Your task to perform on an android device: all mails in gmail Image 0: 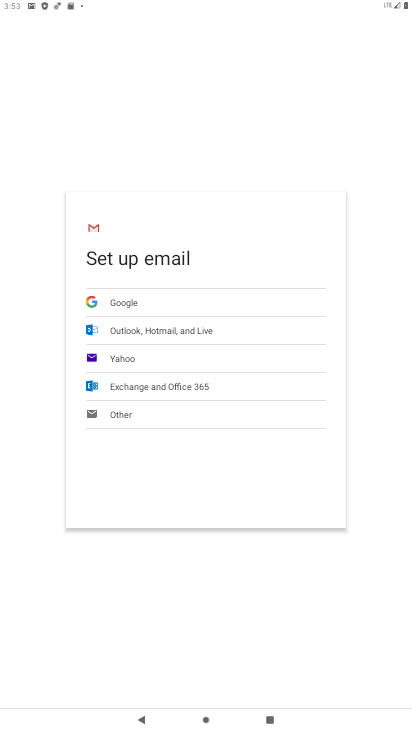
Step 0: press back button
Your task to perform on an android device: all mails in gmail Image 1: 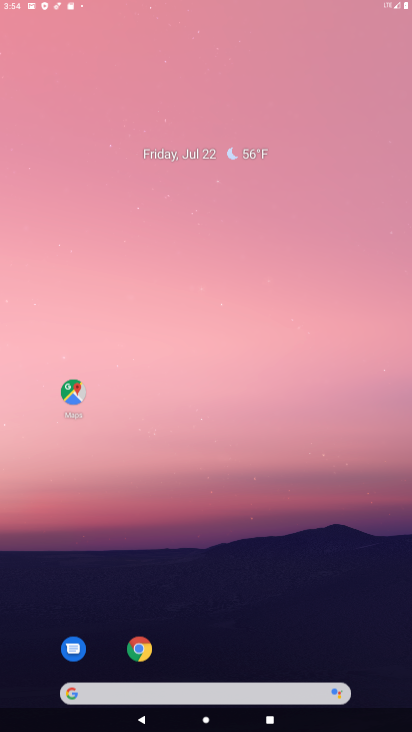
Step 1: press back button
Your task to perform on an android device: all mails in gmail Image 2: 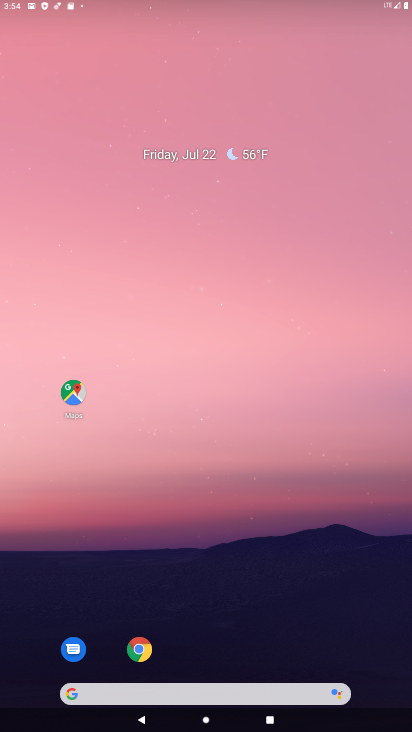
Step 2: press back button
Your task to perform on an android device: all mails in gmail Image 3: 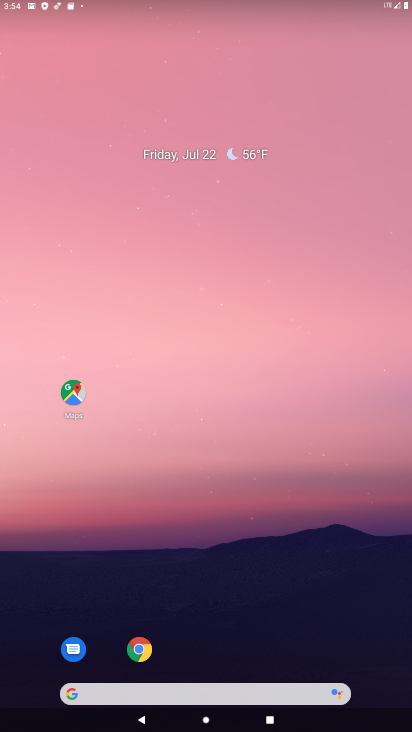
Step 3: drag from (225, 205) to (213, 128)
Your task to perform on an android device: all mails in gmail Image 4: 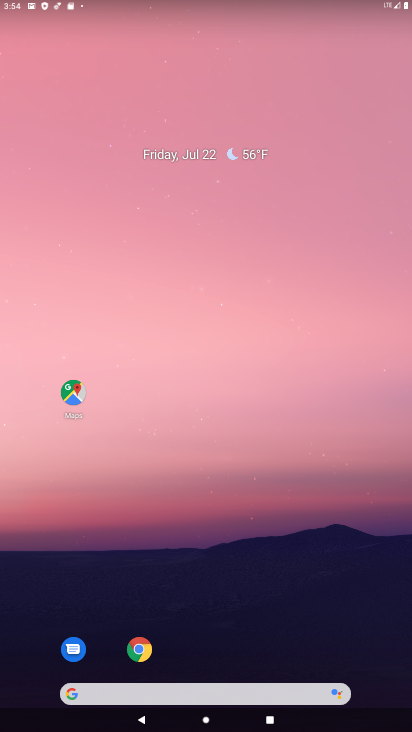
Step 4: drag from (198, 436) to (173, 250)
Your task to perform on an android device: all mails in gmail Image 5: 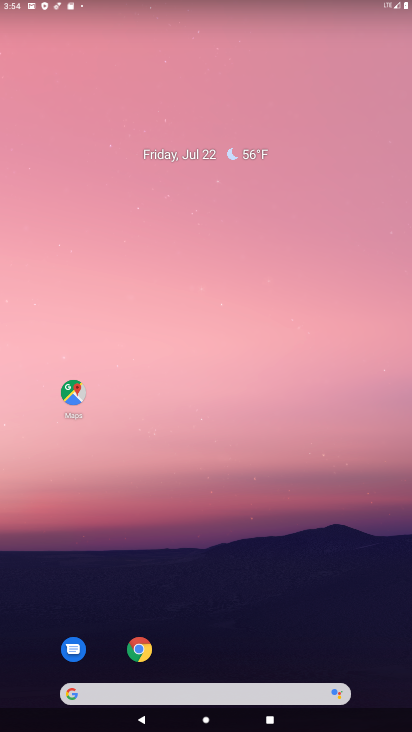
Step 5: drag from (156, 196) to (181, 148)
Your task to perform on an android device: all mails in gmail Image 6: 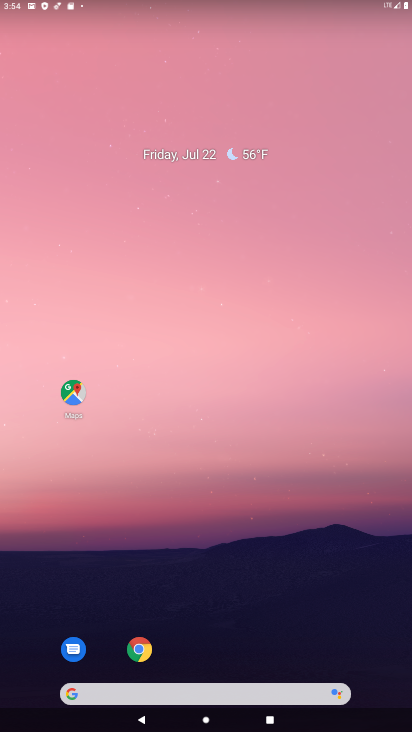
Step 6: drag from (218, 313) to (159, 87)
Your task to perform on an android device: all mails in gmail Image 7: 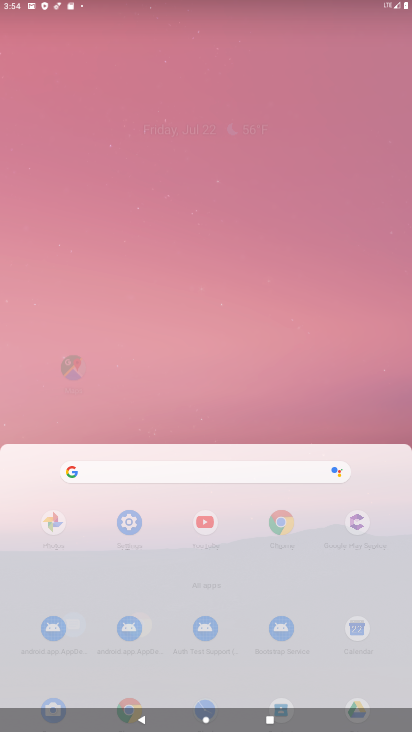
Step 7: click (93, 160)
Your task to perform on an android device: all mails in gmail Image 8: 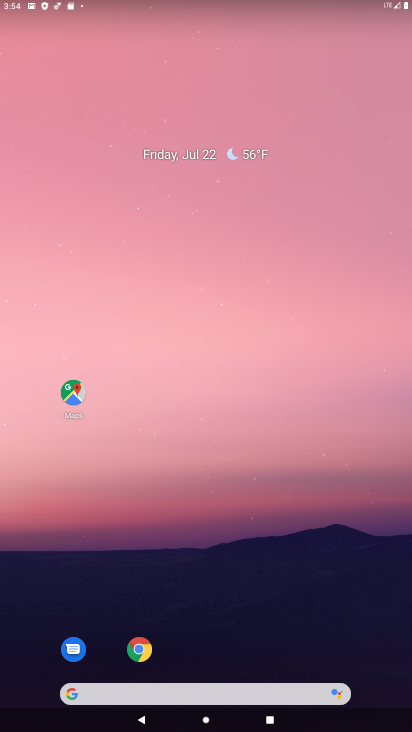
Step 8: click (135, 208)
Your task to perform on an android device: all mails in gmail Image 9: 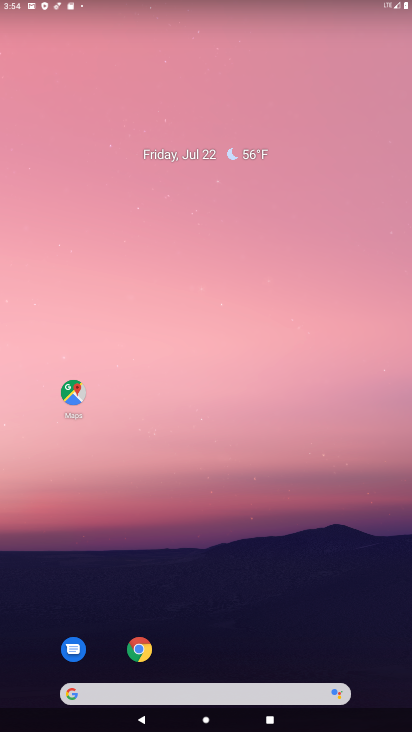
Step 9: drag from (150, 277) to (133, 118)
Your task to perform on an android device: all mails in gmail Image 10: 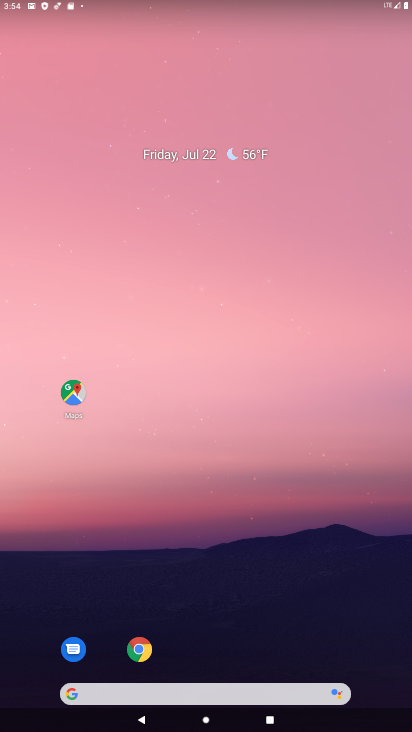
Step 10: drag from (208, 422) to (216, 42)
Your task to perform on an android device: all mails in gmail Image 11: 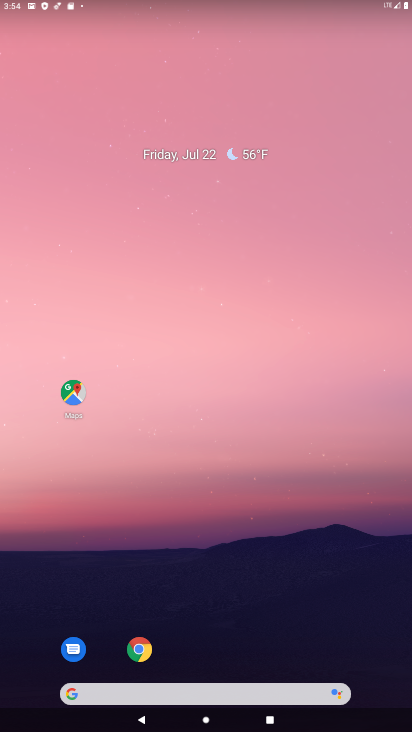
Step 11: drag from (264, 493) to (143, 23)
Your task to perform on an android device: all mails in gmail Image 12: 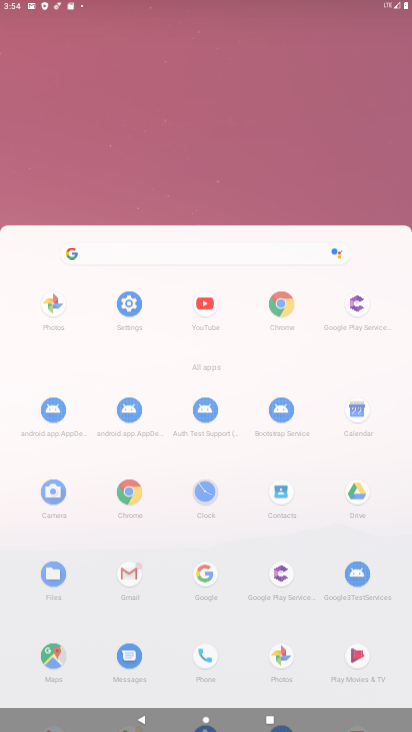
Step 12: click (197, 2)
Your task to perform on an android device: all mails in gmail Image 13: 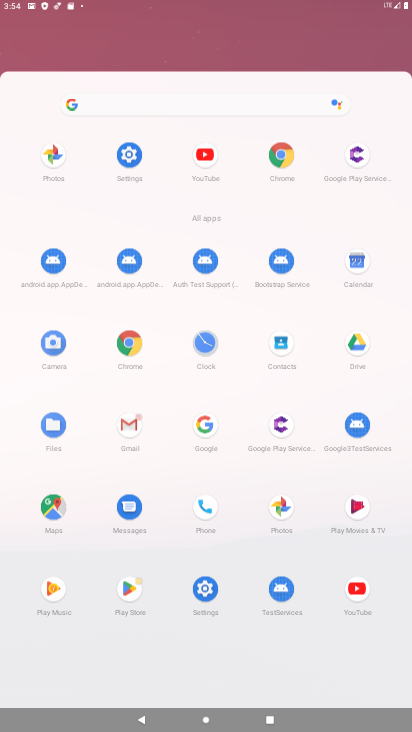
Step 13: drag from (202, 443) to (112, 94)
Your task to perform on an android device: all mails in gmail Image 14: 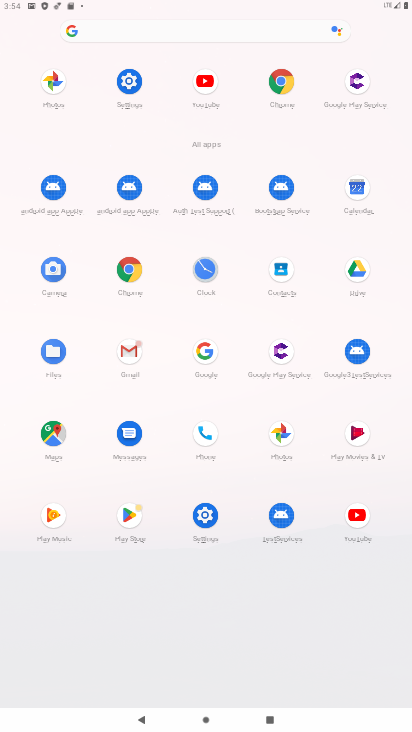
Step 14: click (127, 346)
Your task to perform on an android device: all mails in gmail Image 15: 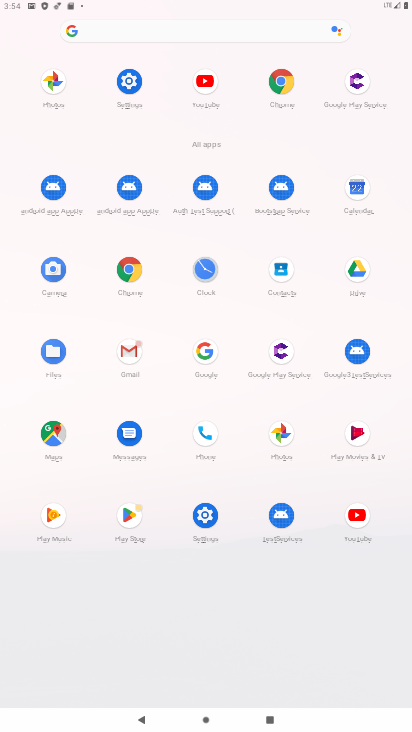
Step 15: click (132, 344)
Your task to perform on an android device: all mails in gmail Image 16: 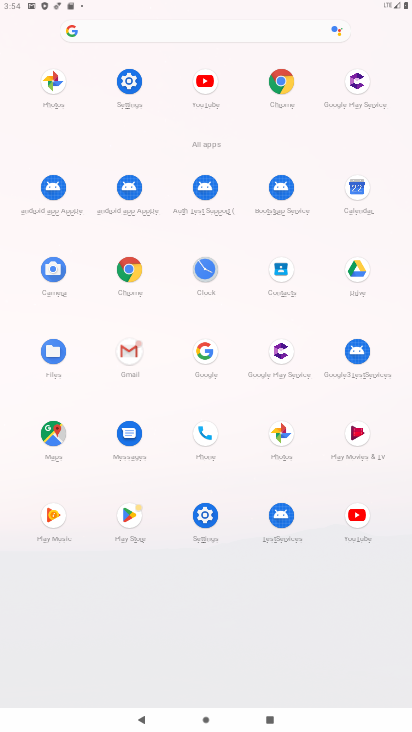
Step 16: click (135, 343)
Your task to perform on an android device: all mails in gmail Image 17: 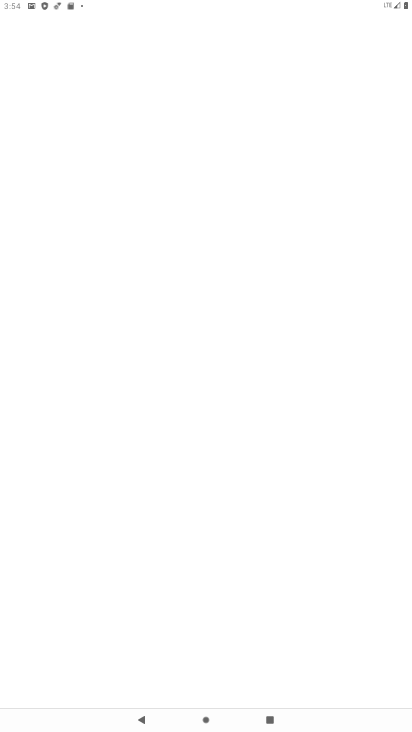
Step 17: click (136, 343)
Your task to perform on an android device: all mails in gmail Image 18: 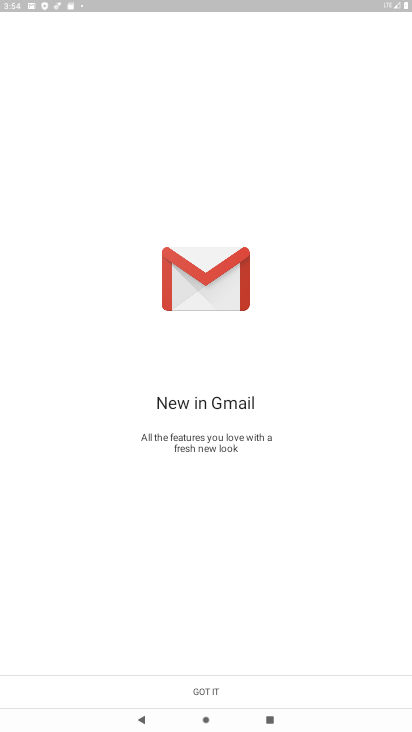
Step 18: click (213, 683)
Your task to perform on an android device: all mails in gmail Image 19: 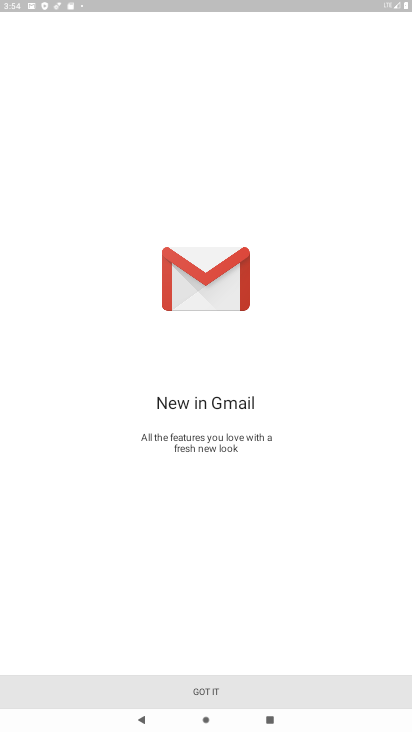
Step 19: click (212, 684)
Your task to perform on an android device: all mails in gmail Image 20: 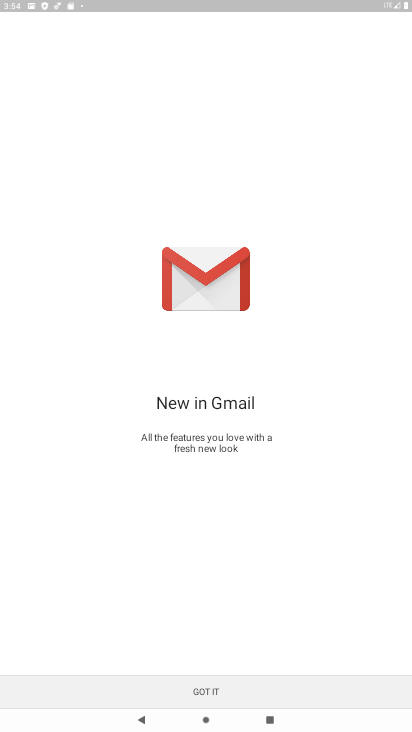
Step 20: click (212, 684)
Your task to perform on an android device: all mails in gmail Image 21: 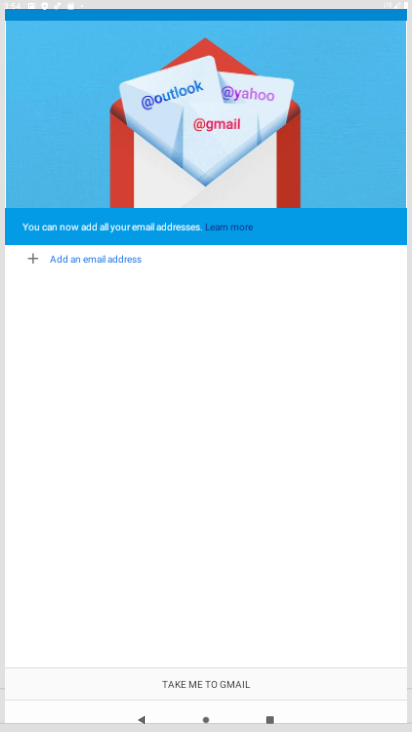
Step 21: click (212, 684)
Your task to perform on an android device: all mails in gmail Image 22: 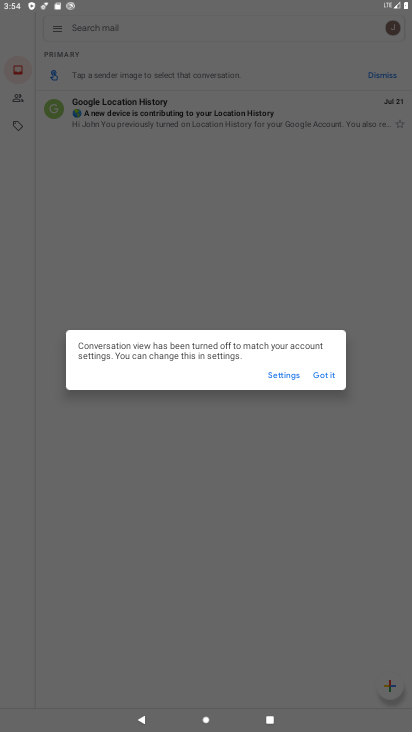
Step 22: click (284, 372)
Your task to perform on an android device: all mails in gmail Image 23: 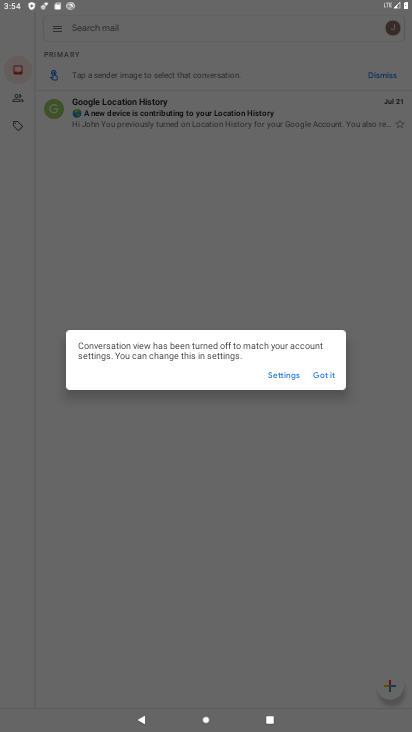
Step 23: click (284, 373)
Your task to perform on an android device: all mails in gmail Image 24: 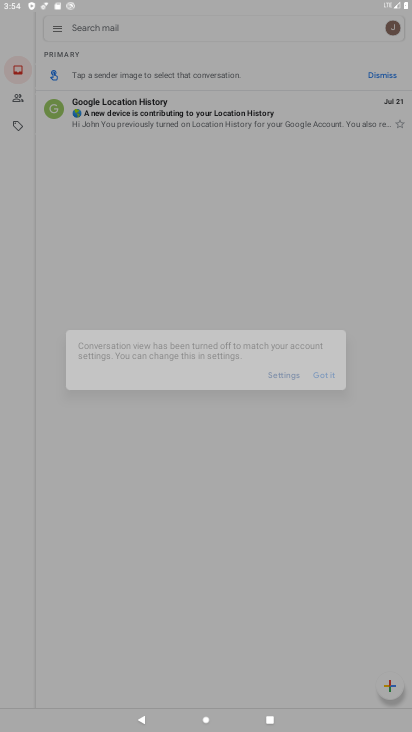
Step 24: click (284, 373)
Your task to perform on an android device: all mails in gmail Image 25: 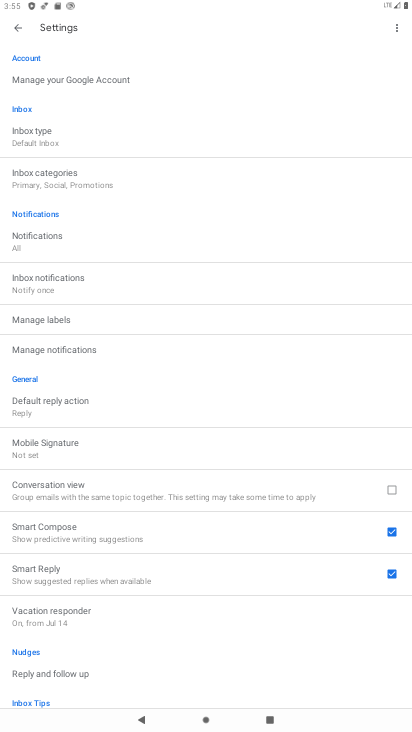
Step 25: click (17, 20)
Your task to perform on an android device: all mails in gmail Image 26: 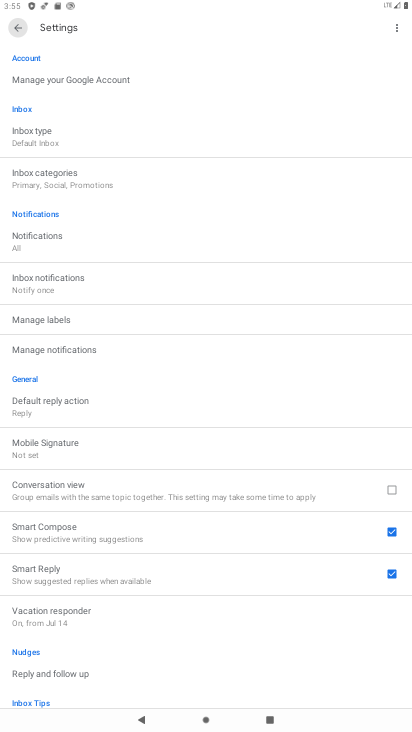
Step 26: click (17, 19)
Your task to perform on an android device: all mails in gmail Image 27: 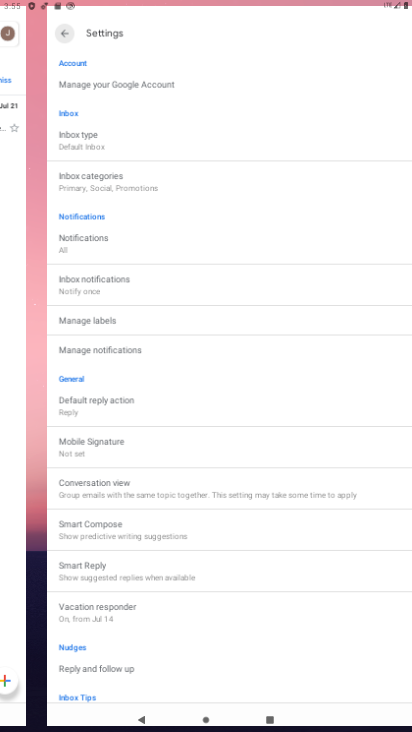
Step 27: click (18, 18)
Your task to perform on an android device: all mails in gmail Image 28: 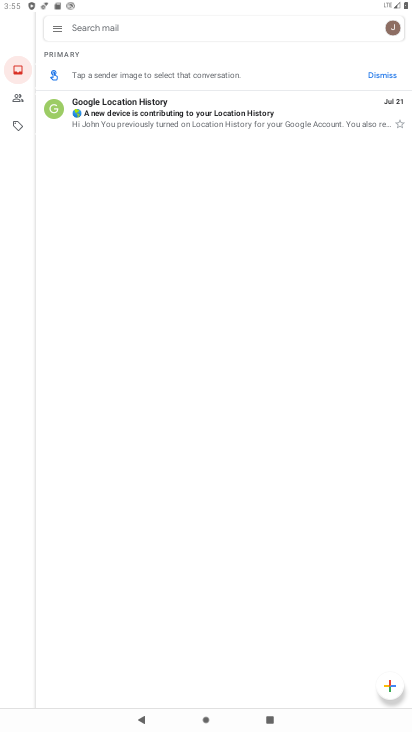
Step 28: click (59, 24)
Your task to perform on an android device: all mails in gmail Image 29: 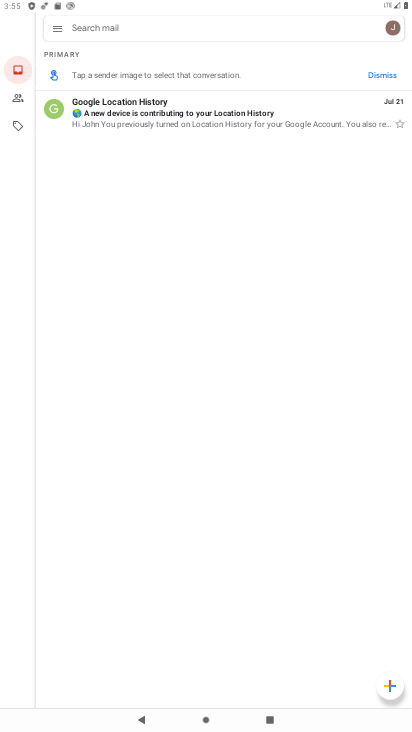
Step 29: task complete